Your task to perform on an android device: Open battery settings Image 0: 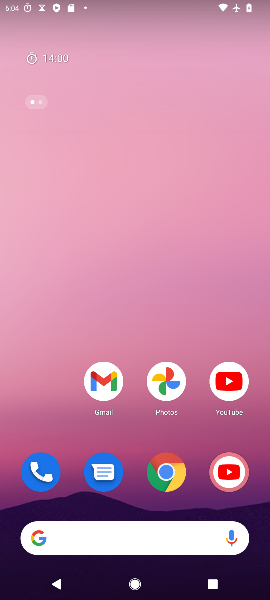
Step 0: press home button
Your task to perform on an android device: Open battery settings Image 1: 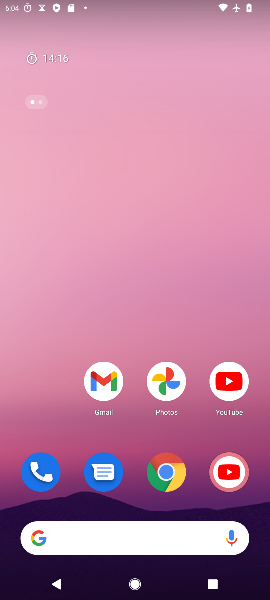
Step 1: drag from (144, 505) to (171, 0)
Your task to perform on an android device: Open battery settings Image 2: 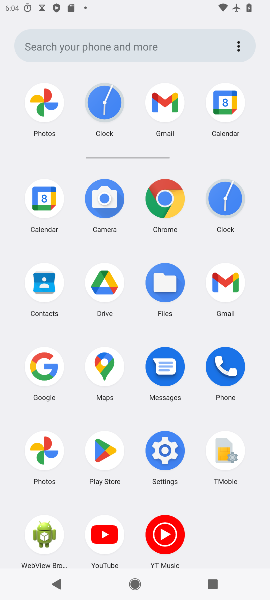
Step 2: click (161, 449)
Your task to perform on an android device: Open battery settings Image 3: 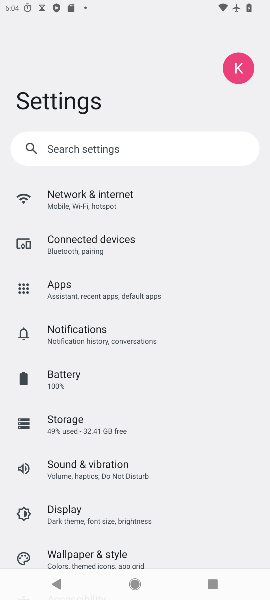
Step 3: click (58, 372)
Your task to perform on an android device: Open battery settings Image 4: 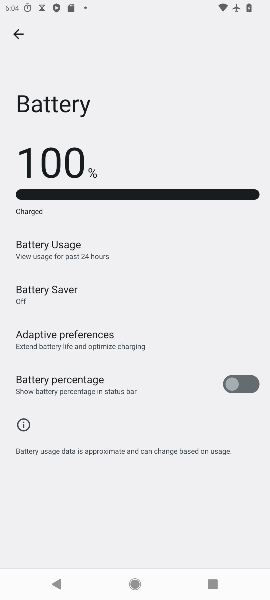
Step 4: task complete